Your task to perform on an android device: Open a new window in the chrome app Image 0: 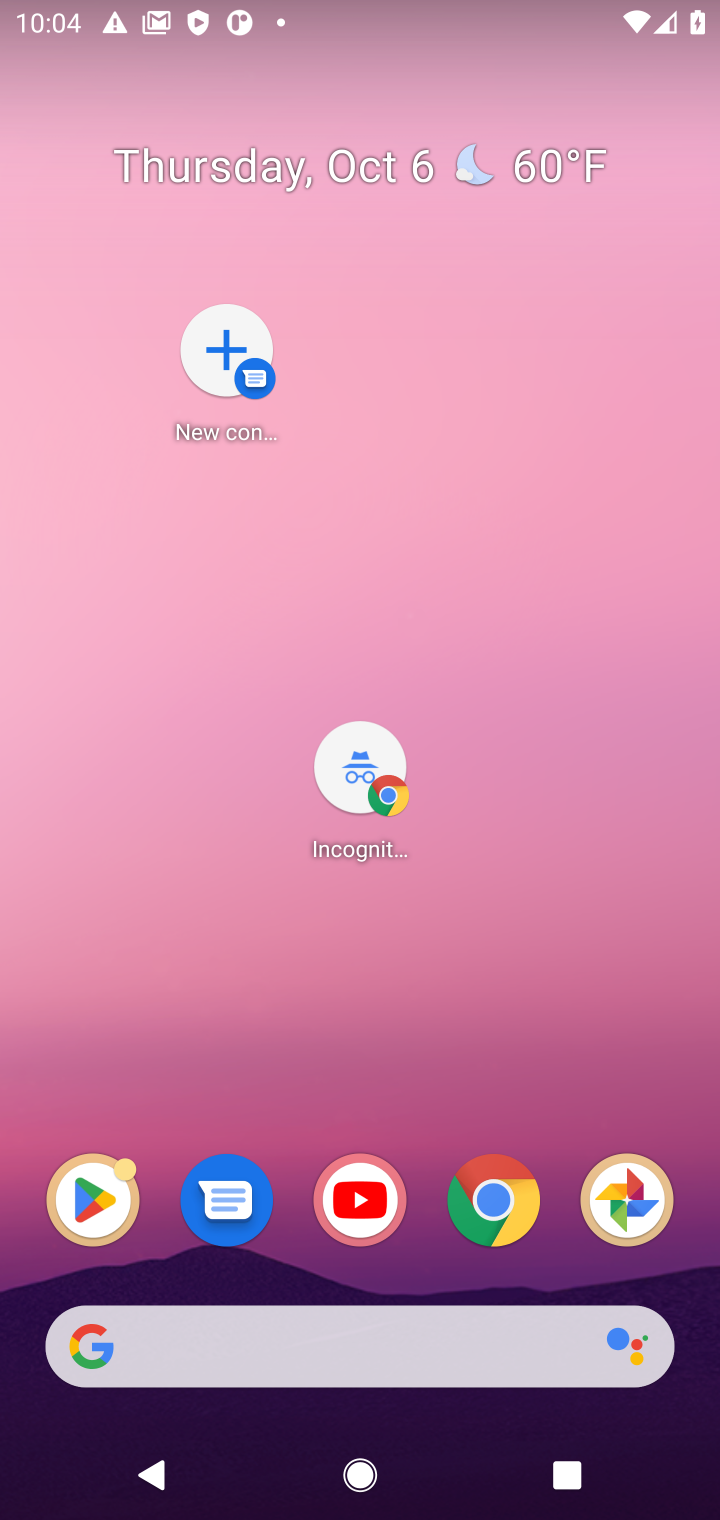
Step 0: click (476, 1200)
Your task to perform on an android device: Open a new window in the chrome app Image 1: 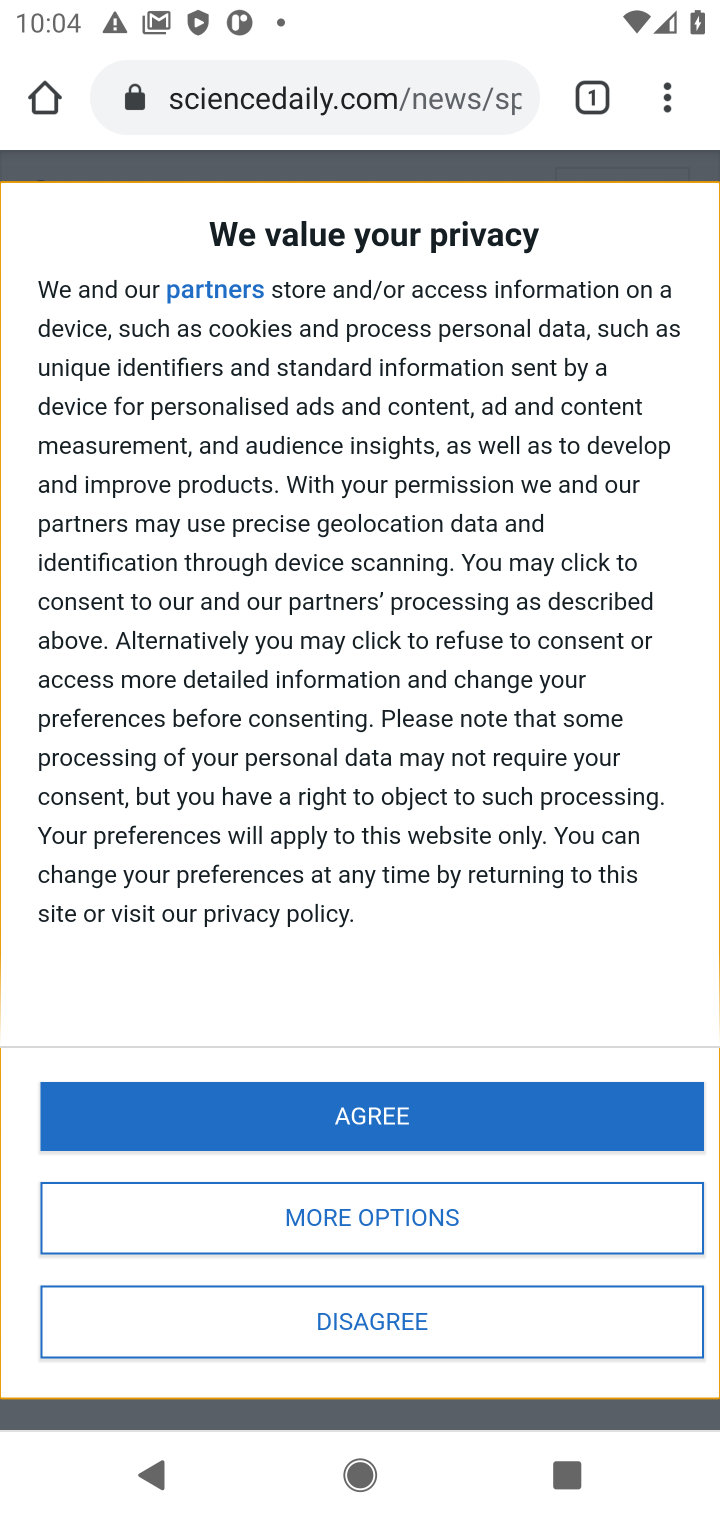
Step 1: click (655, 86)
Your task to perform on an android device: Open a new window in the chrome app Image 2: 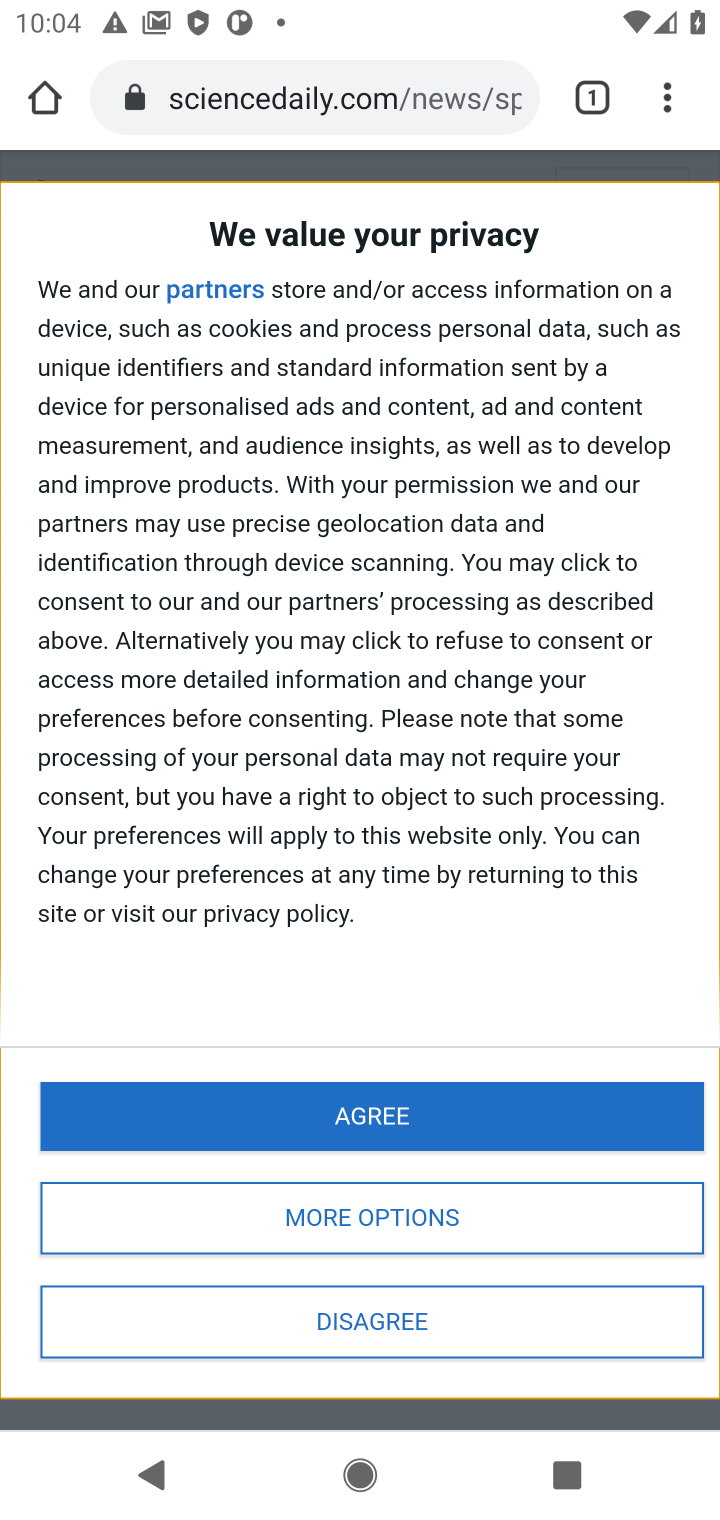
Step 2: click (664, 95)
Your task to perform on an android device: Open a new window in the chrome app Image 3: 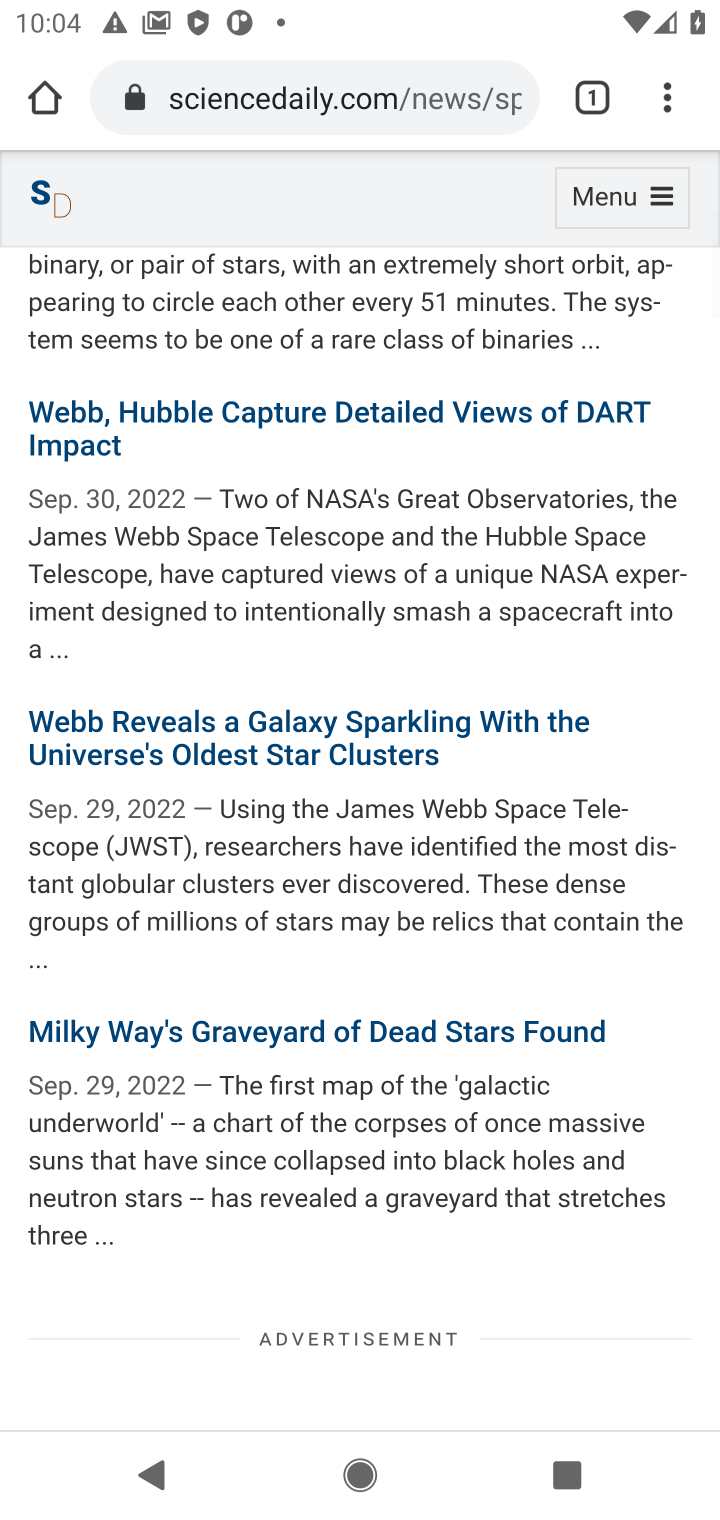
Step 3: click (664, 95)
Your task to perform on an android device: Open a new window in the chrome app Image 4: 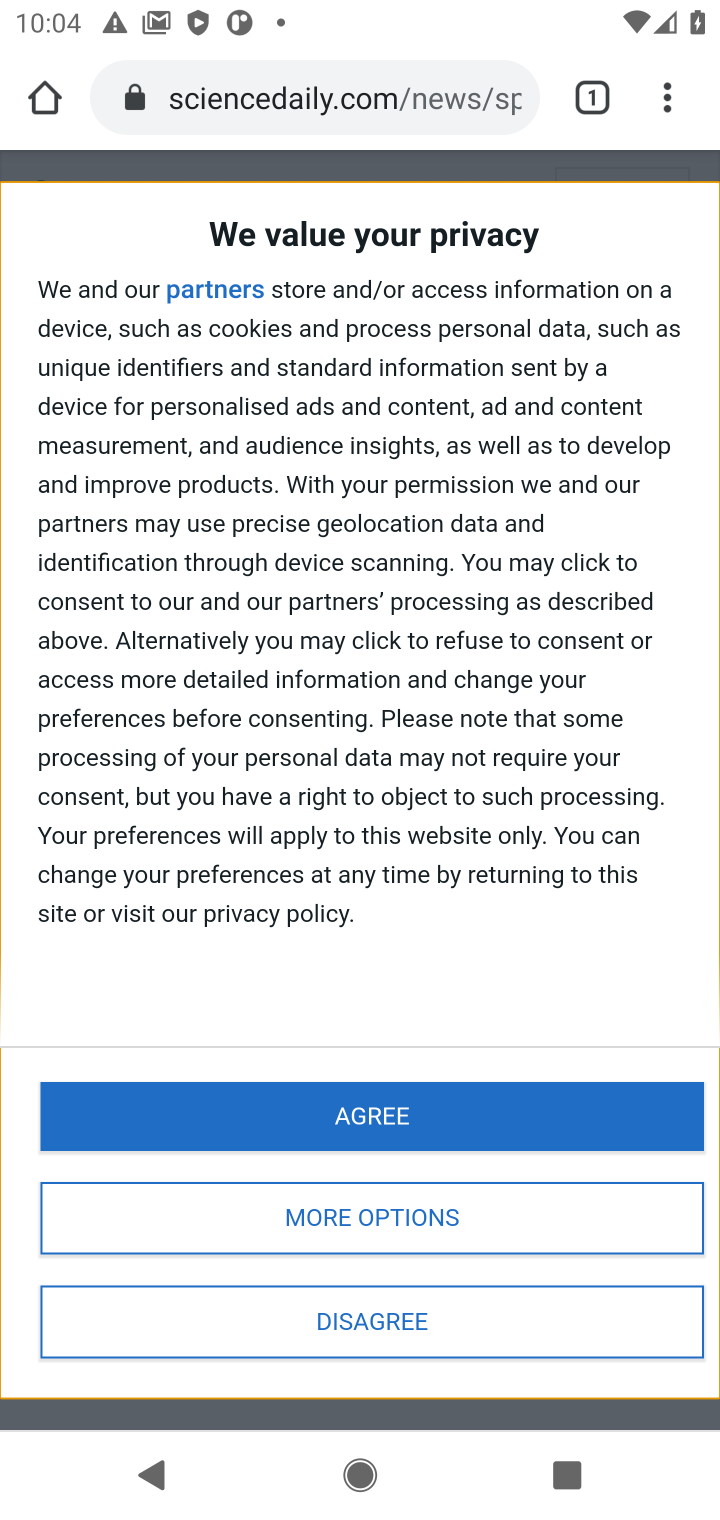
Step 4: click (678, 101)
Your task to perform on an android device: Open a new window in the chrome app Image 5: 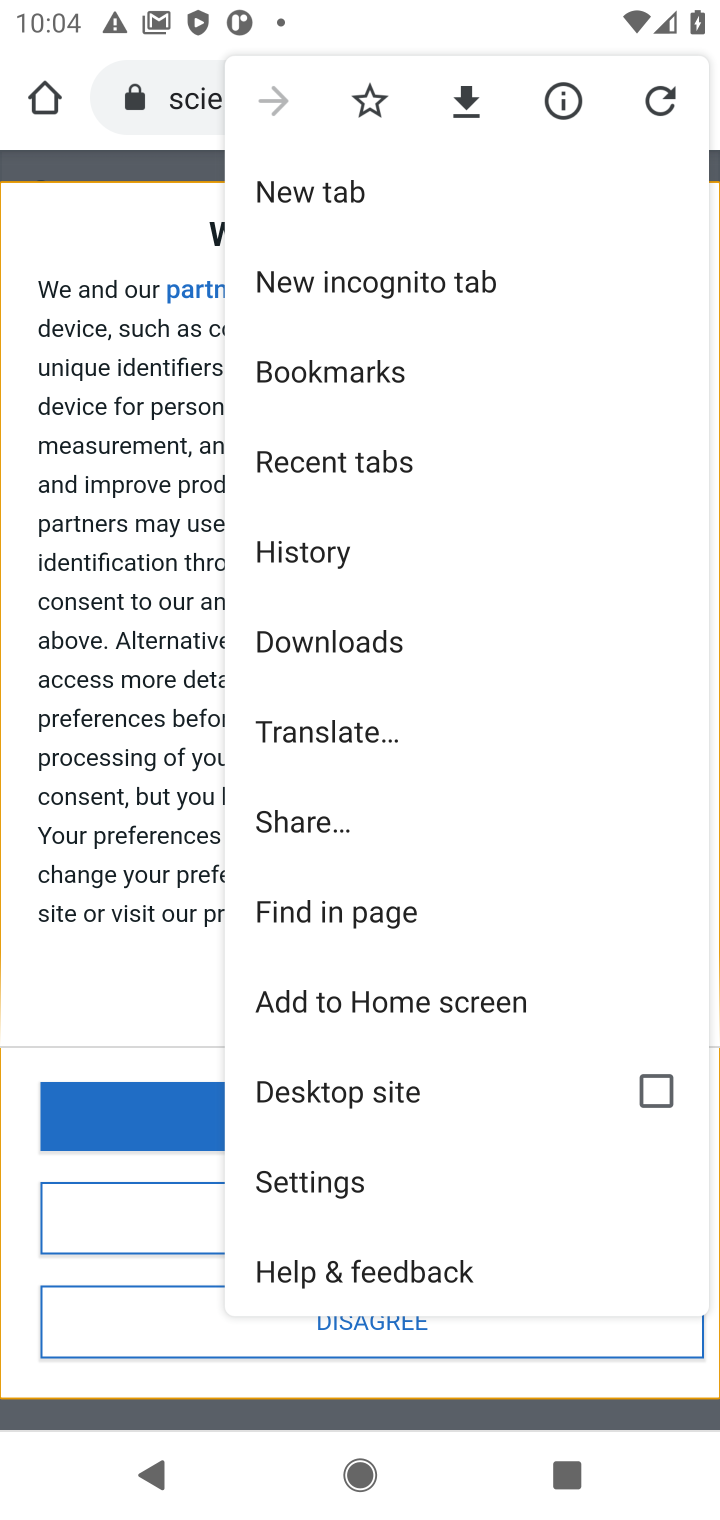
Step 5: click (336, 189)
Your task to perform on an android device: Open a new window in the chrome app Image 6: 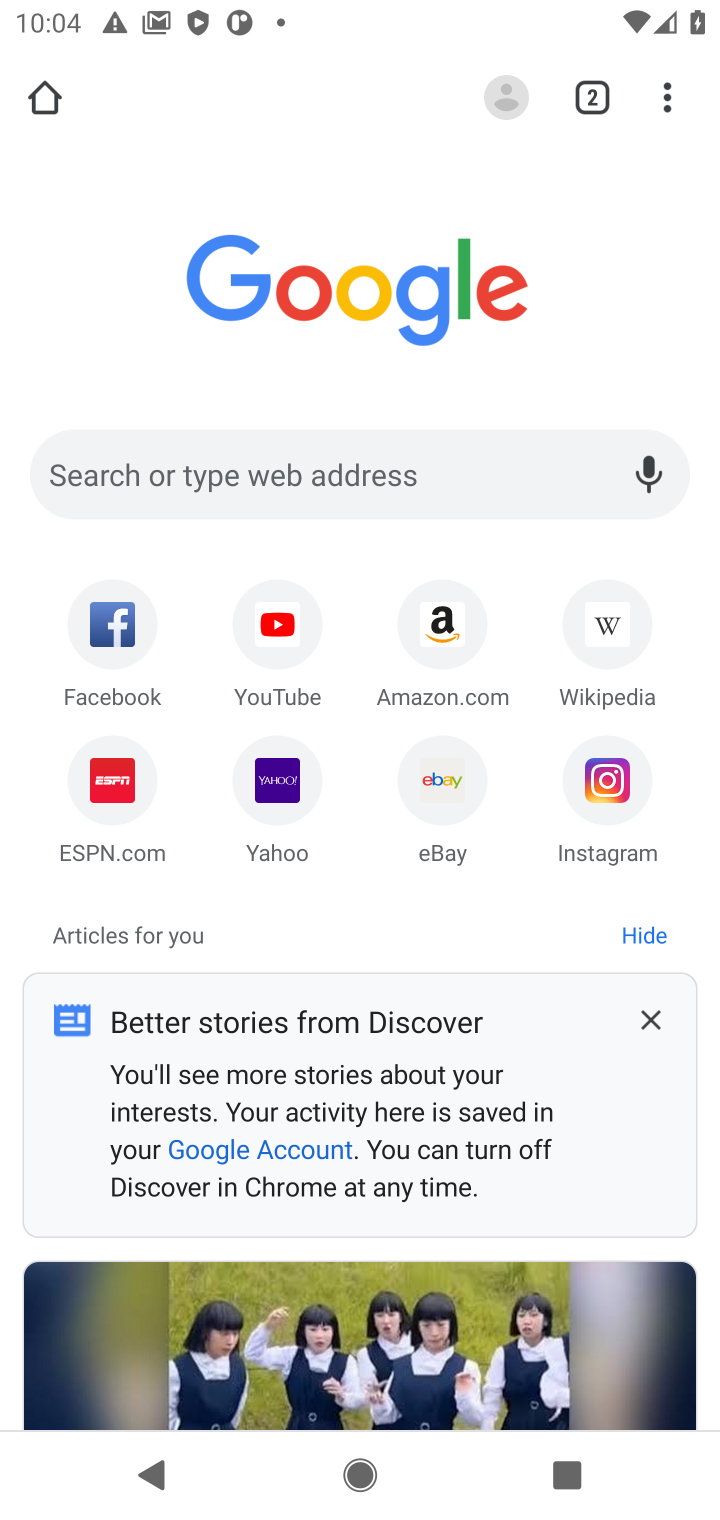
Step 6: task complete